Your task to perform on an android device: delete location history Image 0: 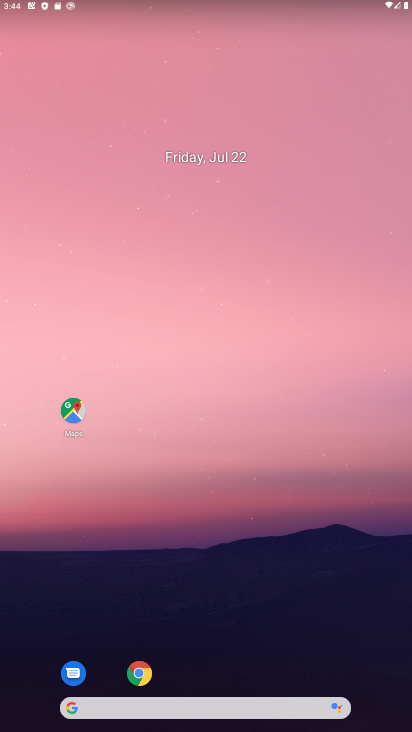
Step 0: press home button
Your task to perform on an android device: delete location history Image 1: 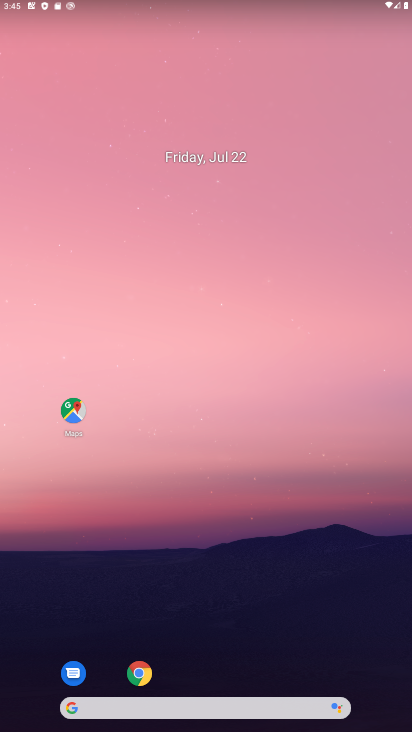
Step 1: click (67, 403)
Your task to perform on an android device: delete location history Image 2: 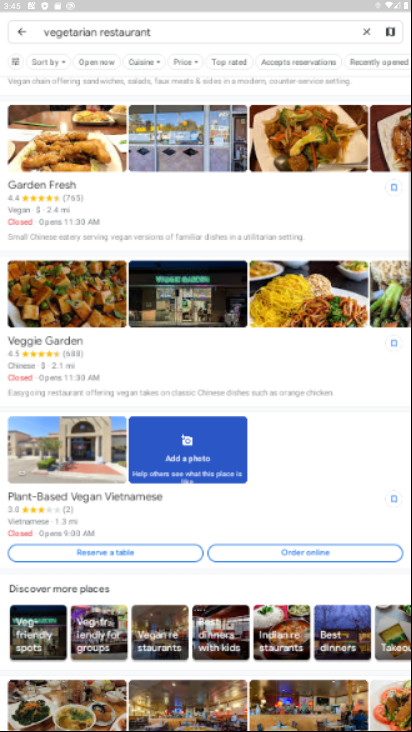
Step 2: click (20, 26)
Your task to perform on an android device: delete location history Image 3: 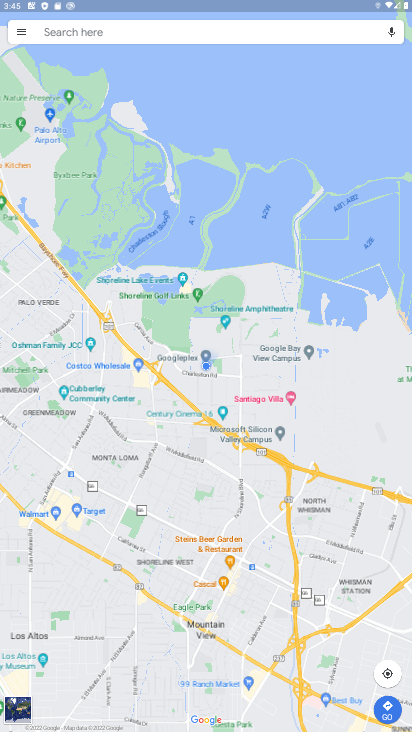
Step 3: click (17, 31)
Your task to perform on an android device: delete location history Image 4: 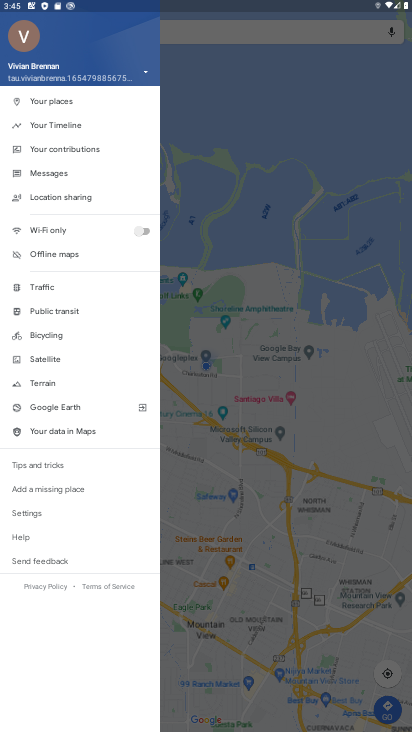
Step 4: click (60, 120)
Your task to perform on an android device: delete location history Image 5: 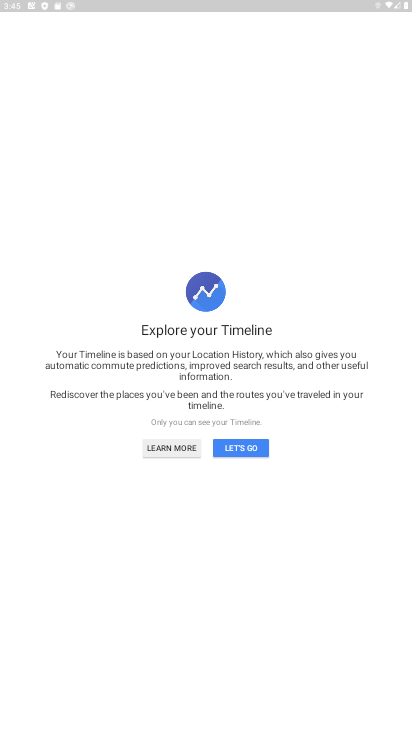
Step 5: click (250, 447)
Your task to perform on an android device: delete location history Image 6: 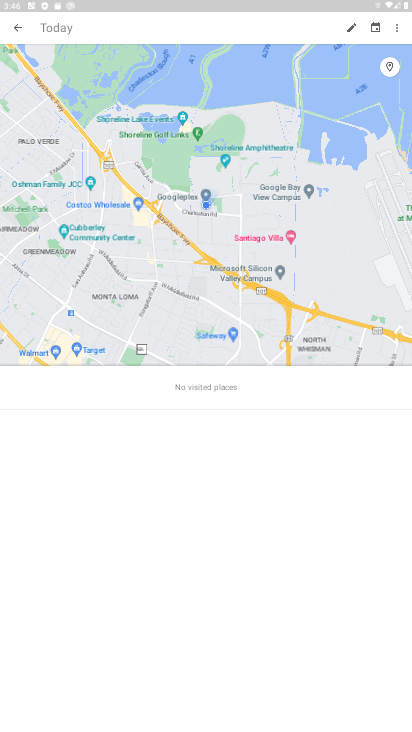
Step 6: click (396, 27)
Your task to perform on an android device: delete location history Image 7: 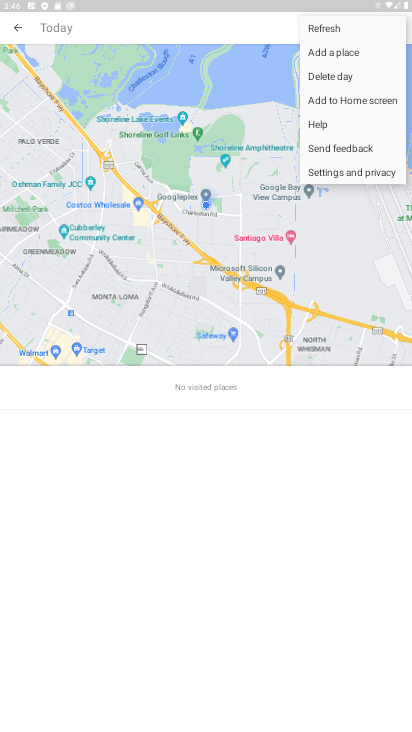
Step 7: click (353, 167)
Your task to perform on an android device: delete location history Image 8: 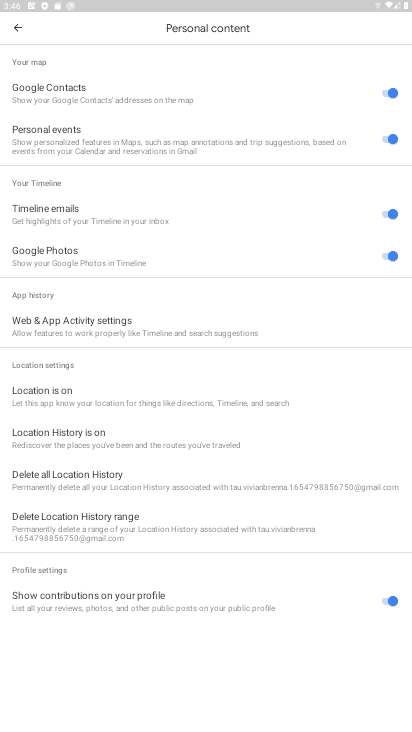
Step 8: click (149, 475)
Your task to perform on an android device: delete location history Image 9: 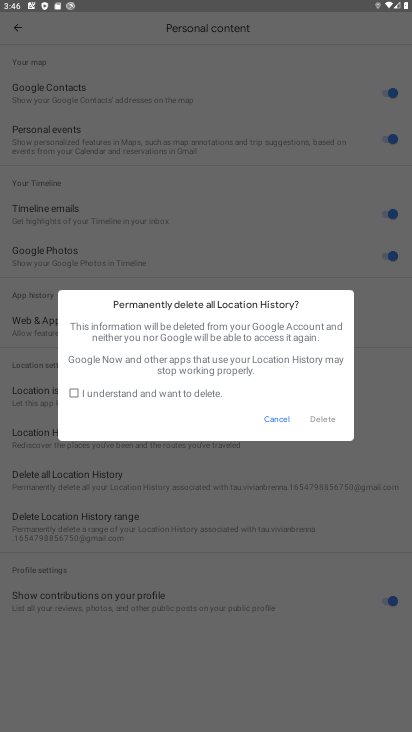
Step 9: click (72, 389)
Your task to perform on an android device: delete location history Image 10: 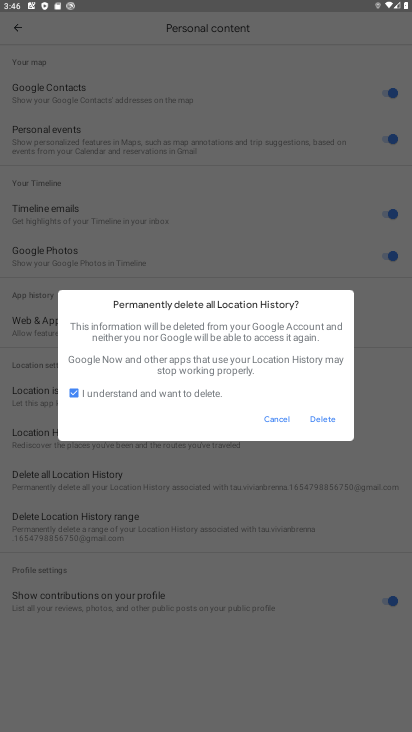
Step 10: click (322, 419)
Your task to perform on an android device: delete location history Image 11: 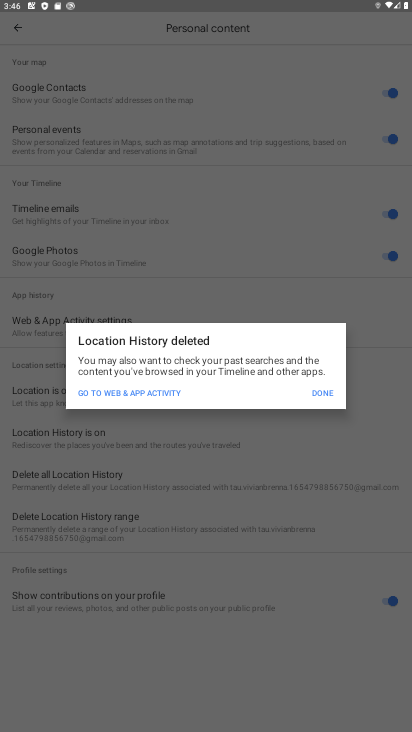
Step 11: click (321, 397)
Your task to perform on an android device: delete location history Image 12: 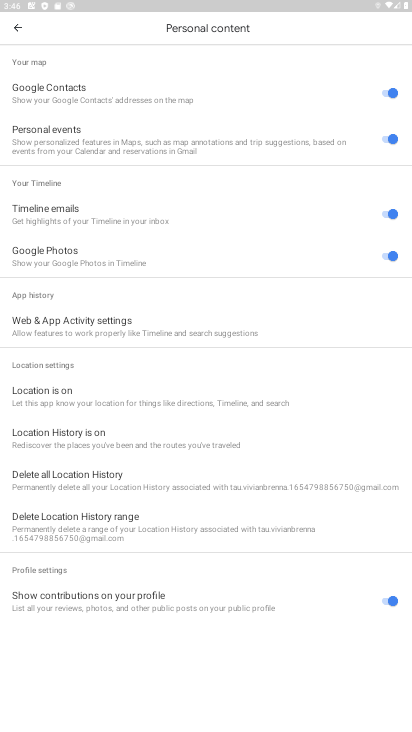
Step 12: task complete